Your task to perform on an android device: Go to Reddit.com Image 0: 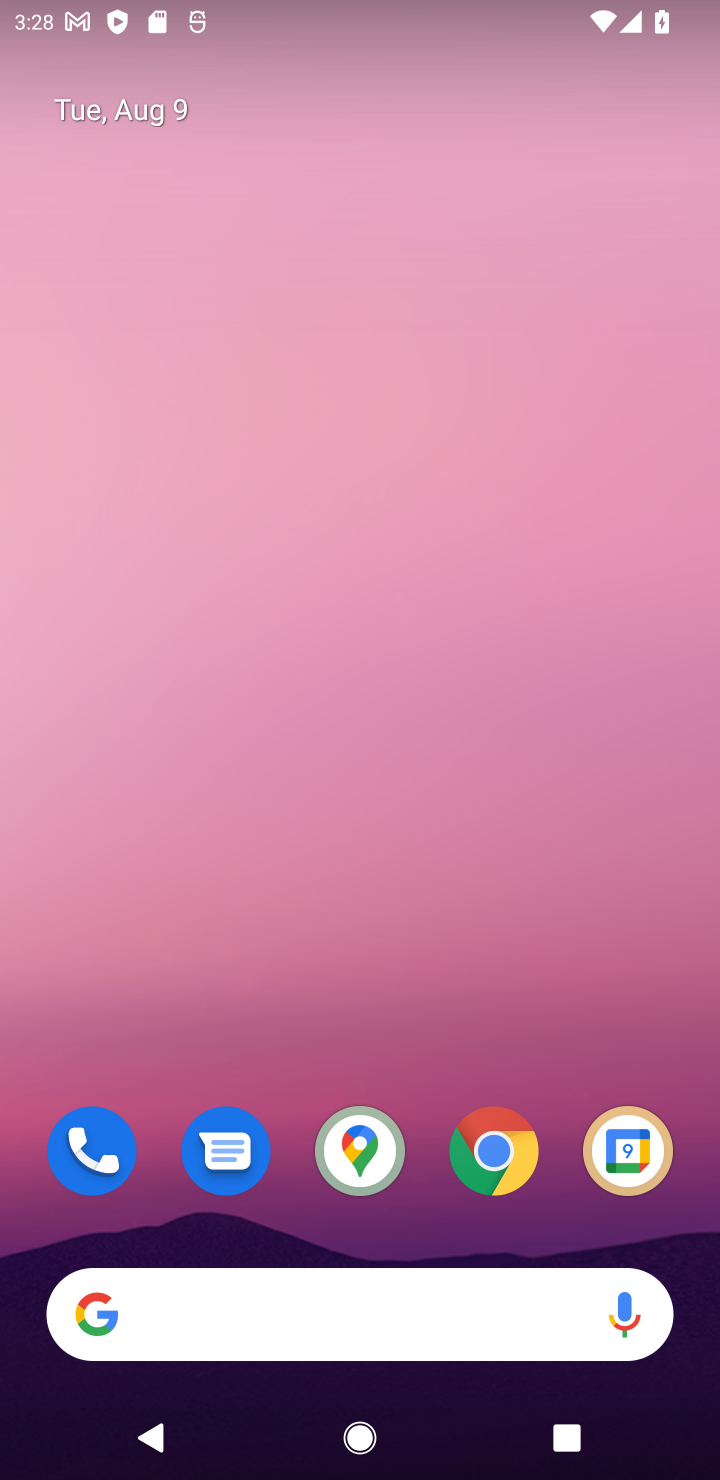
Step 0: click (292, 1314)
Your task to perform on an android device: Go to Reddit.com Image 1: 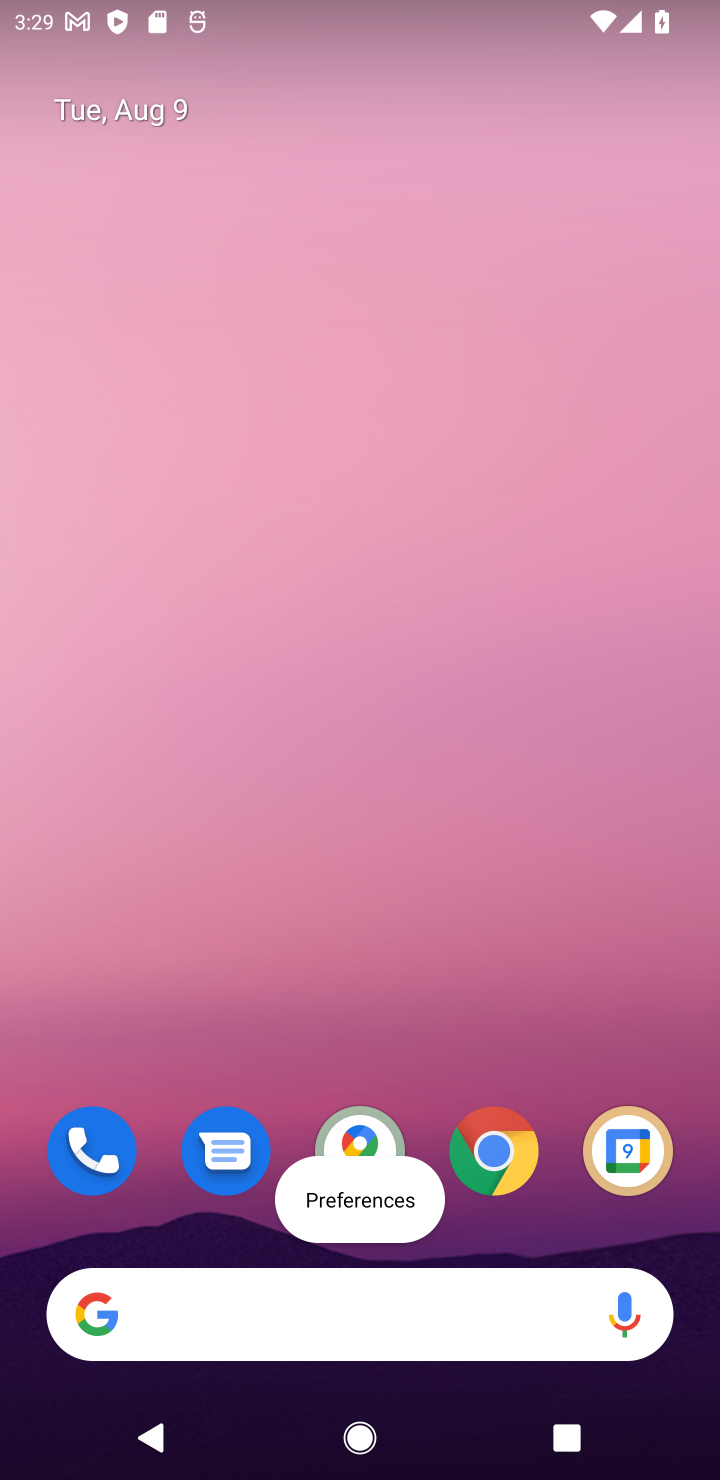
Step 1: type "reddit.com"
Your task to perform on an android device: Go to Reddit.com Image 2: 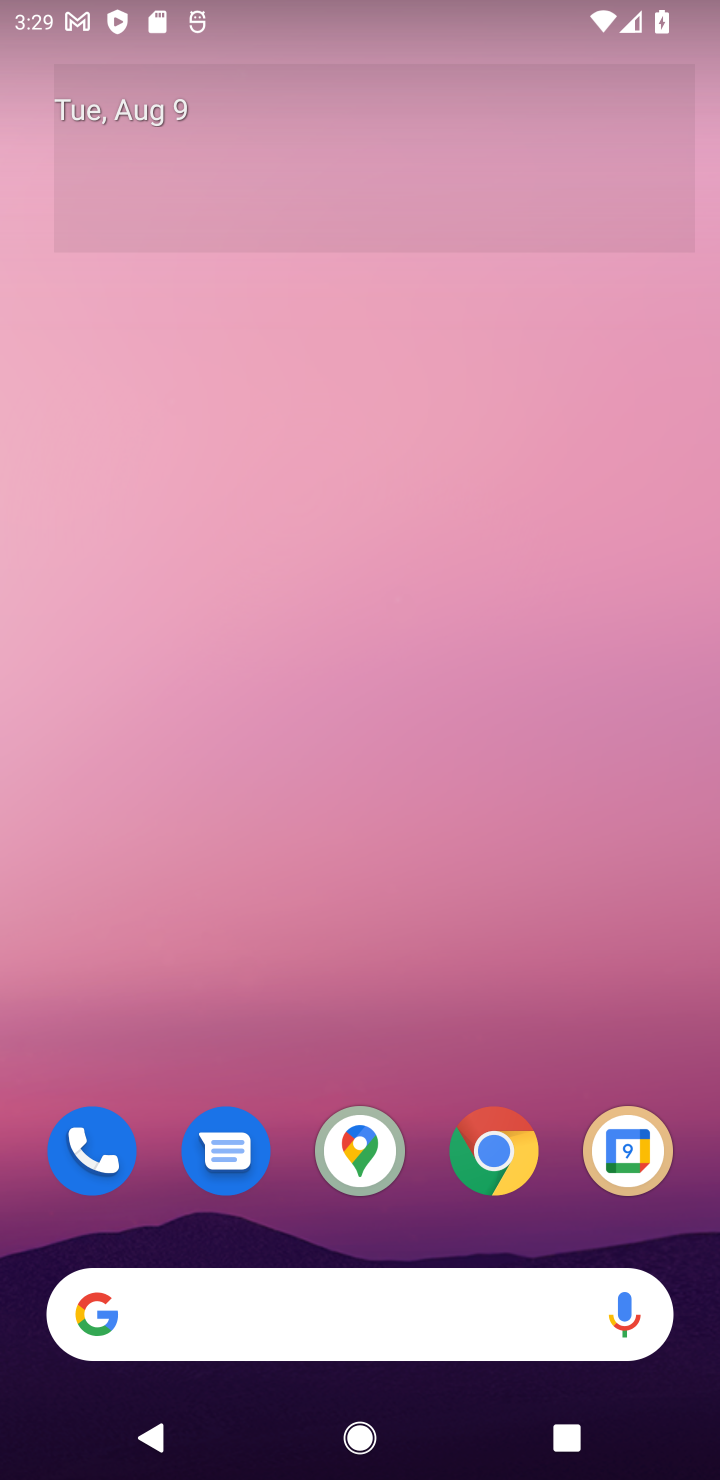
Step 2: click (226, 1305)
Your task to perform on an android device: Go to Reddit.com Image 3: 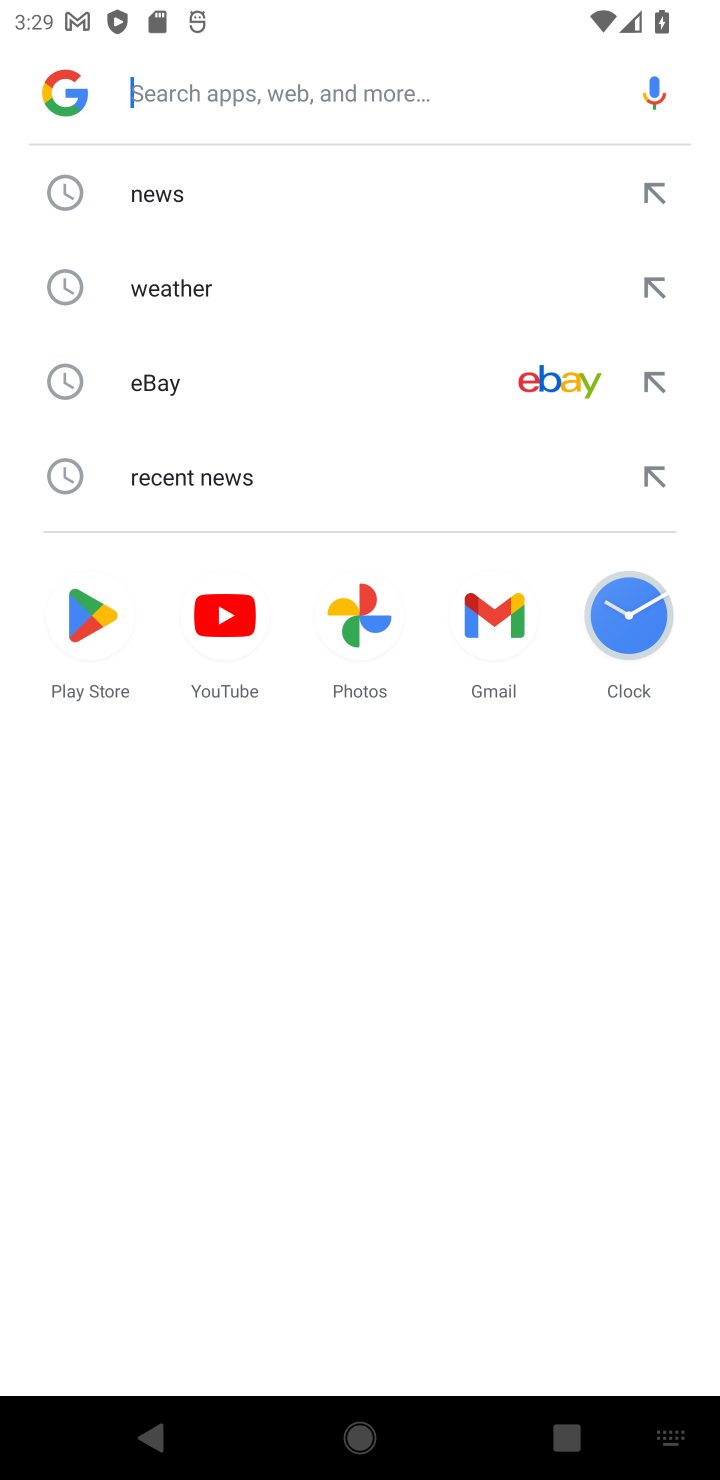
Step 3: type "reddit.com"
Your task to perform on an android device: Go to Reddit.com Image 4: 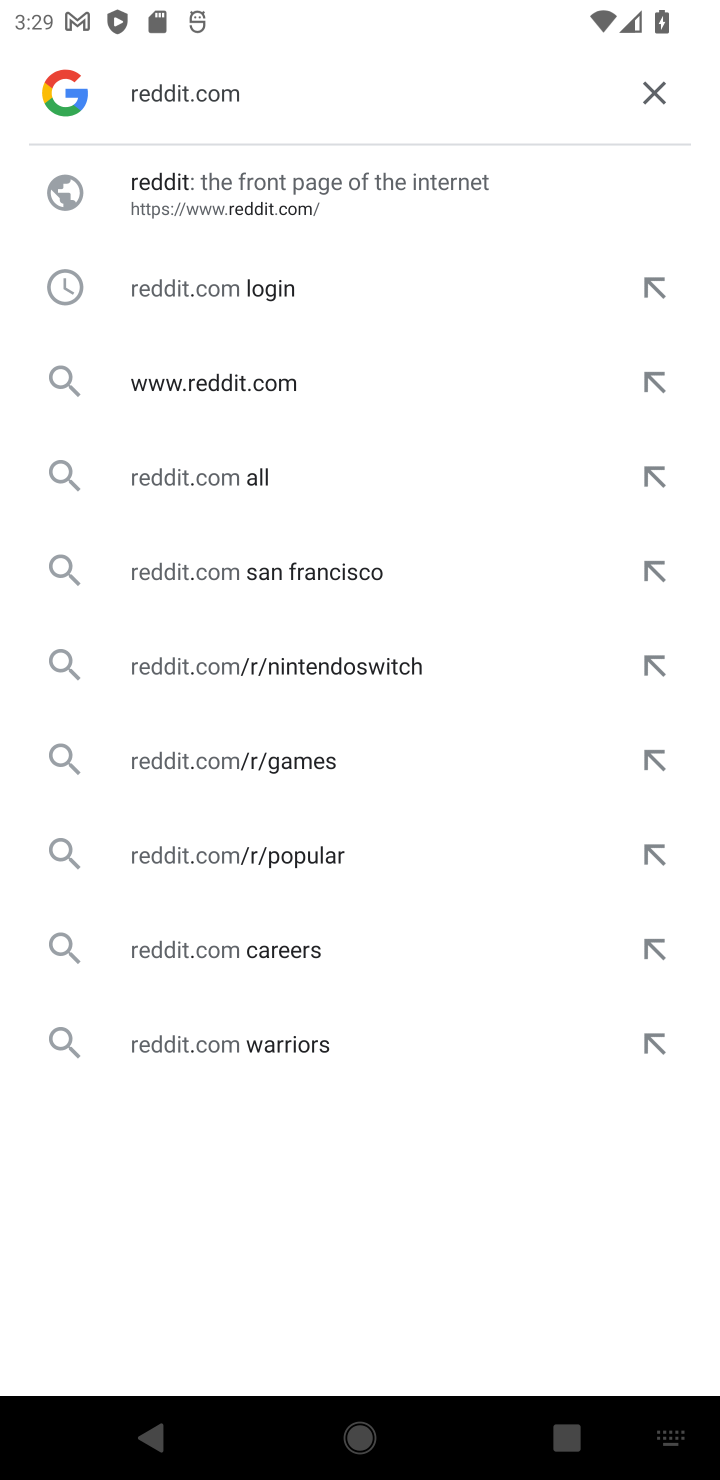
Step 4: click (415, 207)
Your task to perform on an android device: Go to Reddit.com Image 5: 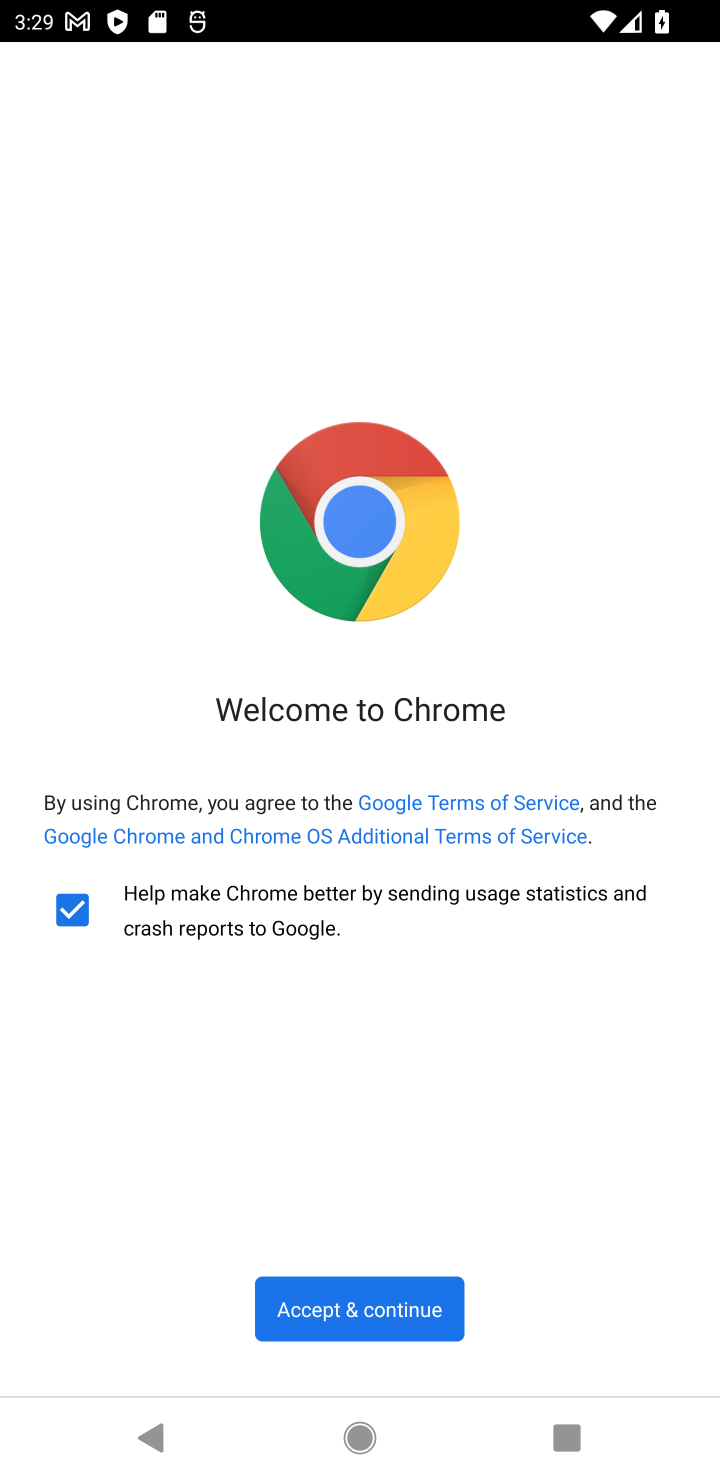
Step 5: click (310, 1327)
Your task to perform on an android device: Go to Reddit.com Image 6: 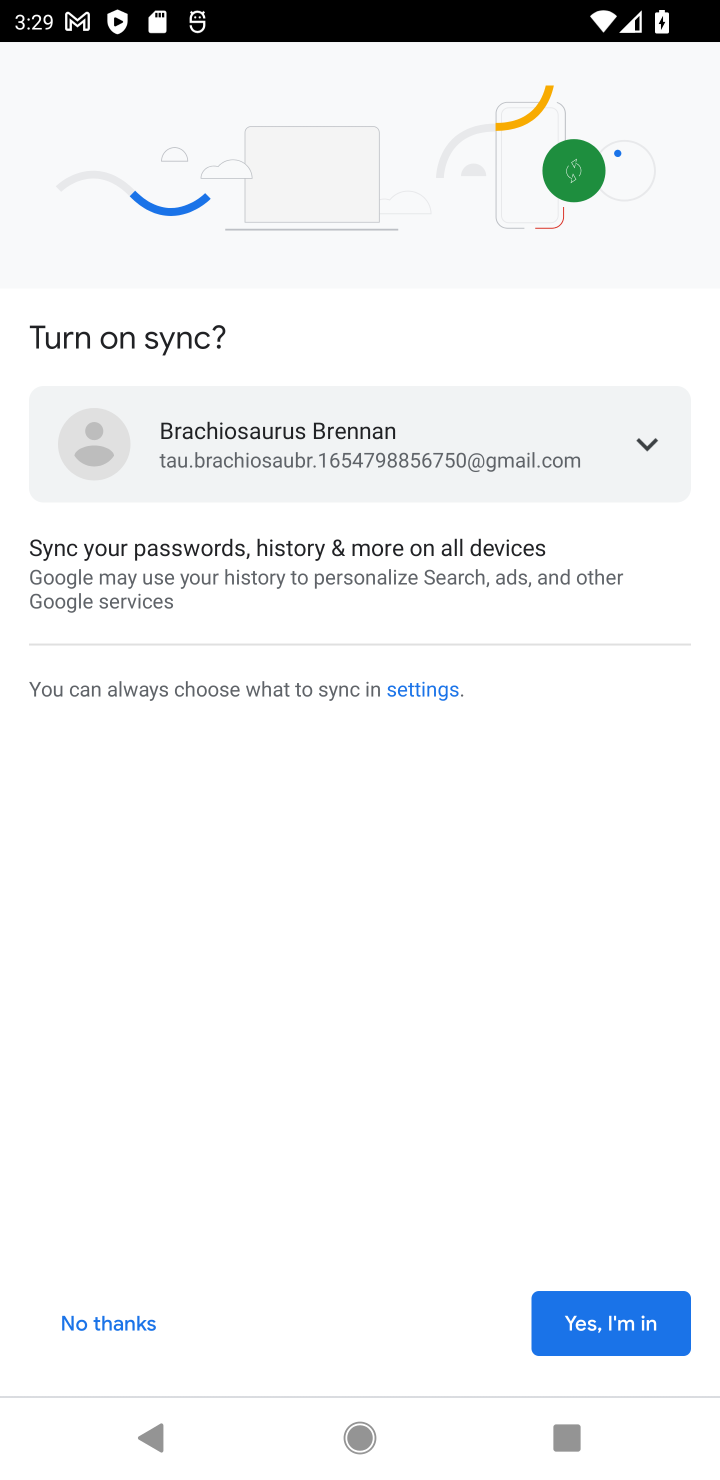
Step 6: click (679, 1327)
Your task to perform on an android device: Go to Reddit.com Image 7: 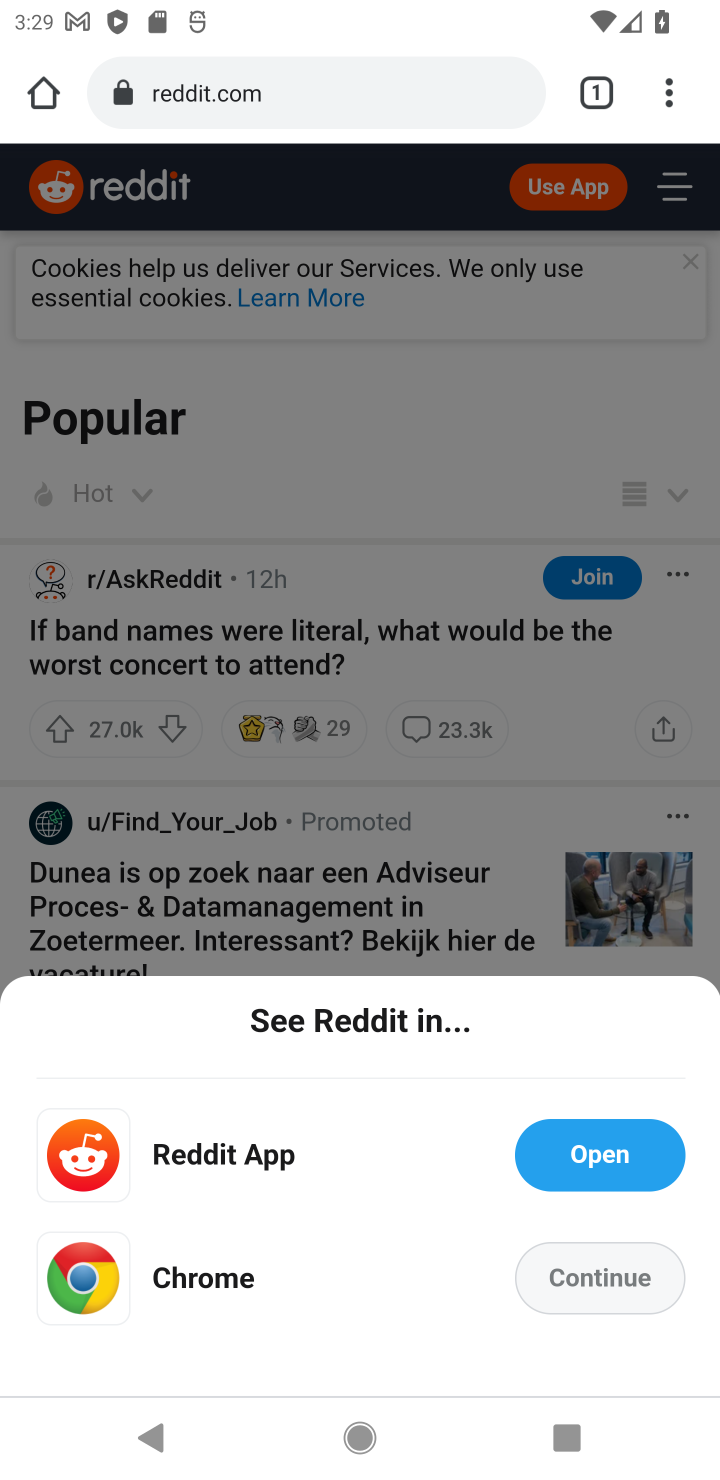
Step 7: task complete